Your task to perform on an android device: add a contact in the contacts app Image 0: 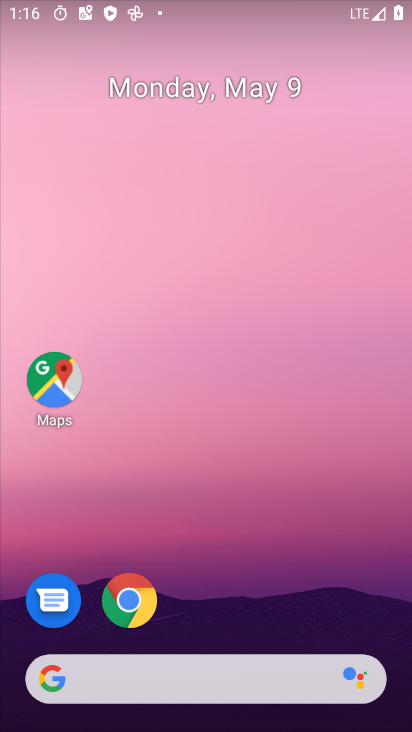
Step 0: drag from (270, 337) to (278, 34)
Your task to perform on an android device: add a contact in the contacts app Image 1: 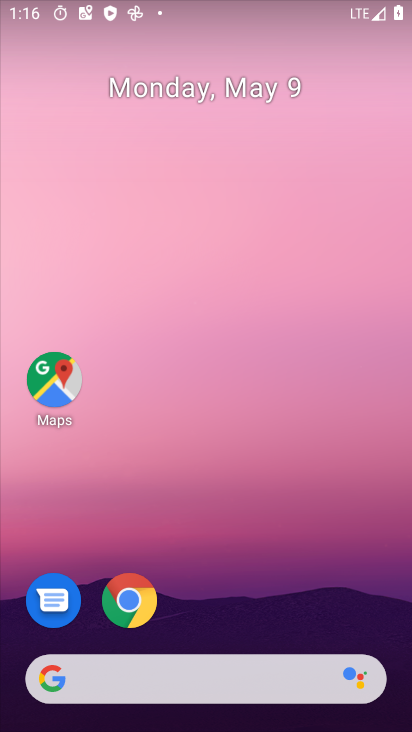
Step 1: drag from (247, 547) to (263, 34)
Your task to perform on an android device: add a contact in the contacts app Image 2: 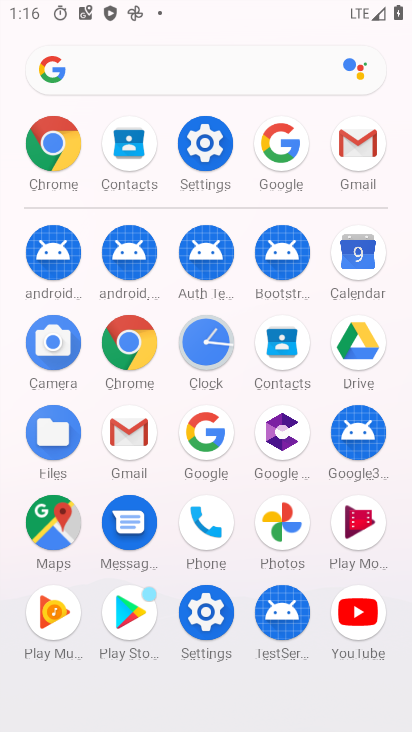
Step 2: click (283, 359)
Your task to perform on an android device: add a contact in the contacts app Image 3: 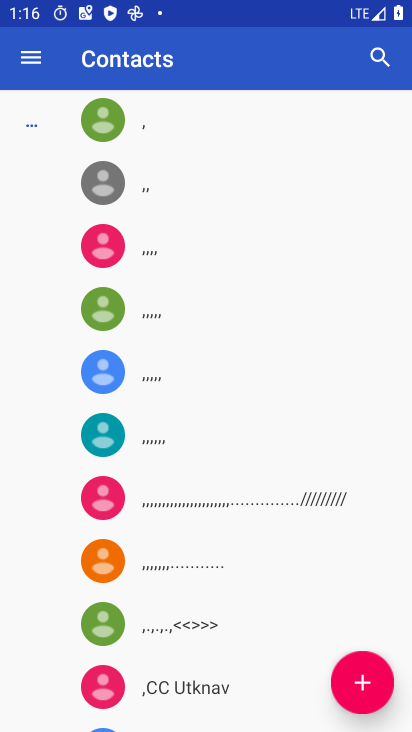
Step 3: click (349, 700)
Your task to perform on an android device: add a contact in the contacts app Image 4: 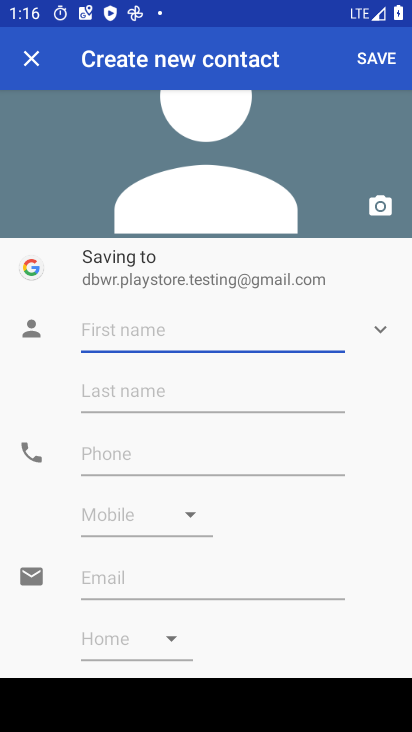
Step 4: click (198, 335)
Your task to perform on an android device: add a contact in the contacts app Image 5: 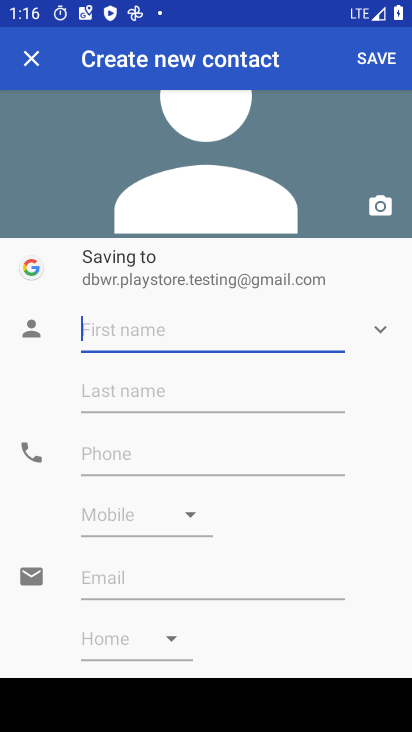
Step 5: type "hgfsgfdy"
Your task to perform on an android device: add a contact in the contacts app Image 6: 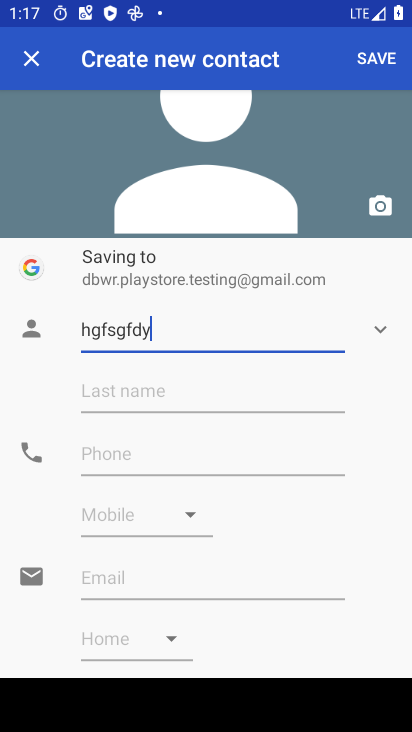
Step 6: type ""
Your task to perform on an android device: add a contact in the contacts app Image 7: 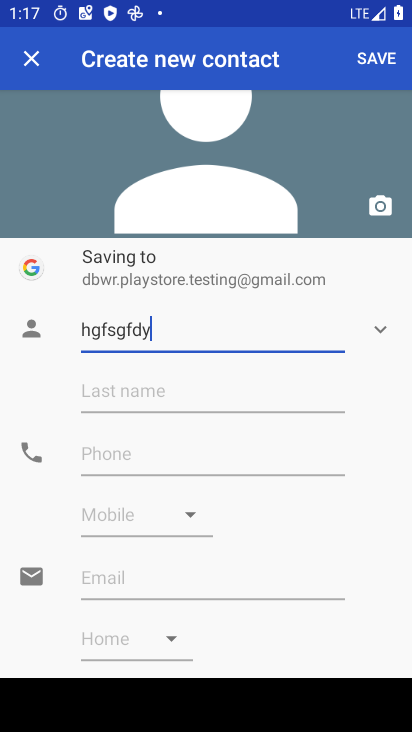
Step 7: click (374, 73)
Your task to perform on an android device: add a contact in the contacts app Image 8: 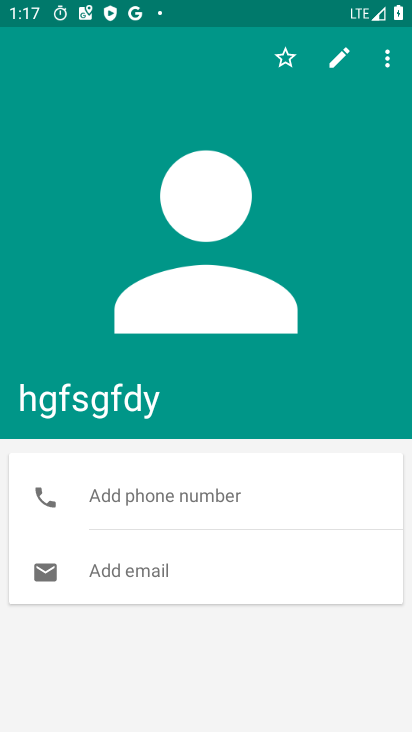
Step 8: task complete